Your task to perform on an android device: Open Android settings Image 0: 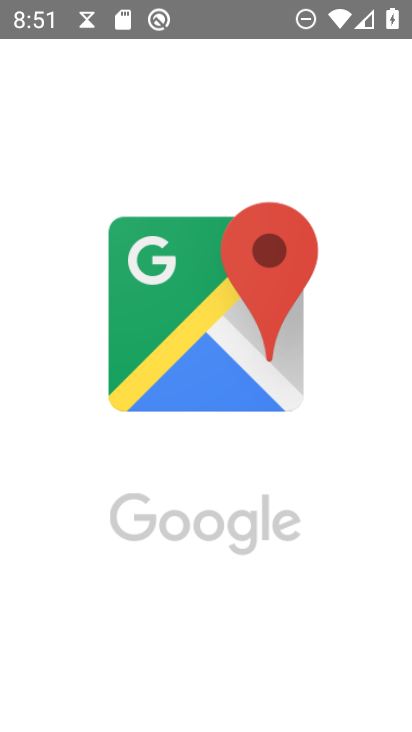
Step 0: click (316, 100)
Your task to perform on an android device: Open Android settings Image 1: 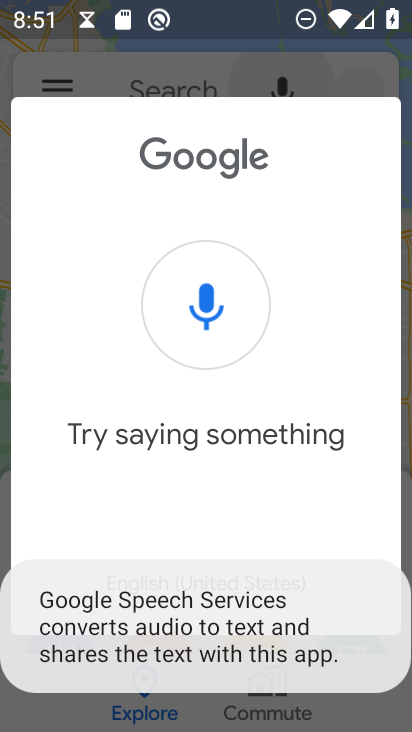
Step 1: press home button
Your task to perform on an android device: Open Android settings Image 2: 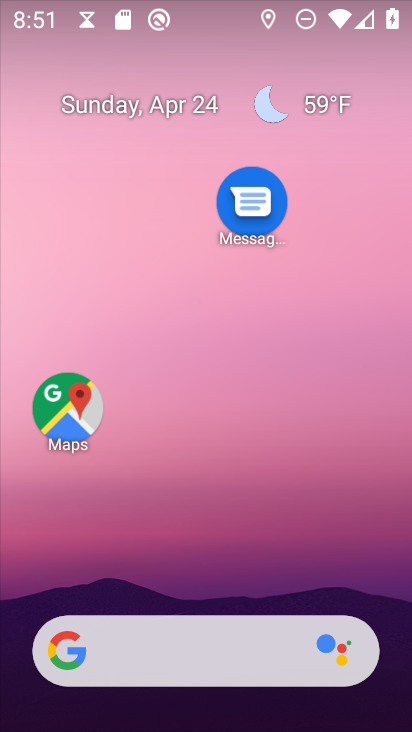
Step 2: click (331, 109)
Your task to perform on an android device: Open Android settings Image 3: 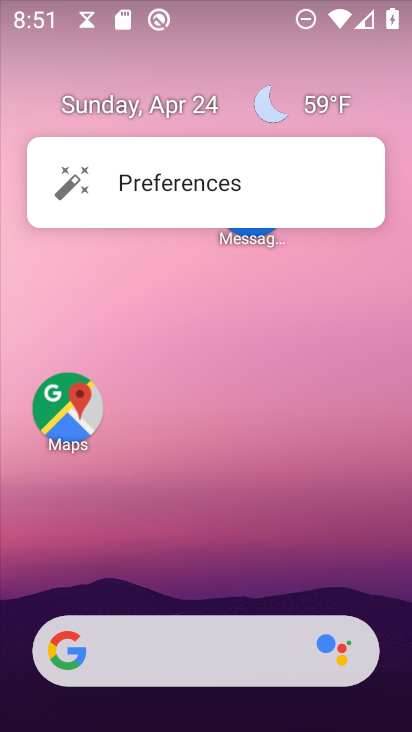
Step 3: drag from (185, 677) to (333, 130)
Your task to perform on an android device: Open Android settings Image 4: 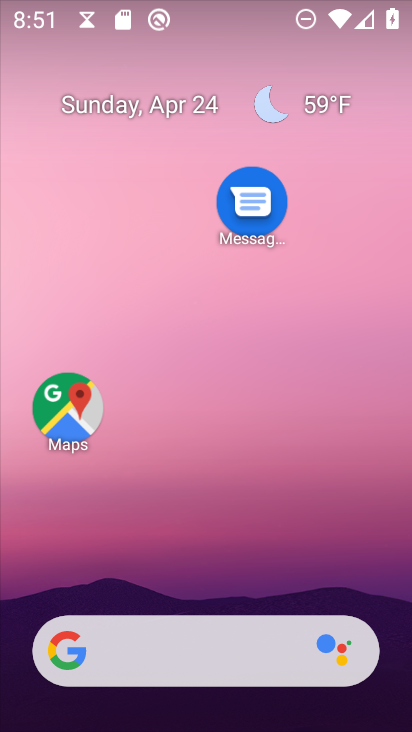
Step 4: drag from (159, 630) to (316, 130)
Your task to perform on an android device: Open Android settings Image 5: 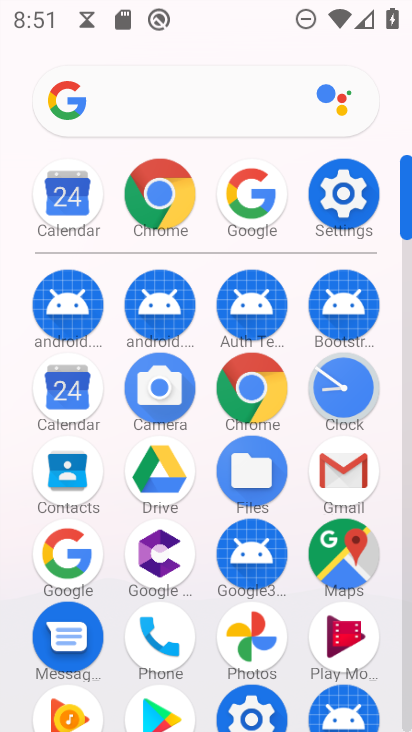
Step 5: click (343, 200)
Your task to perform on an android device: Open Android settings Image 6: 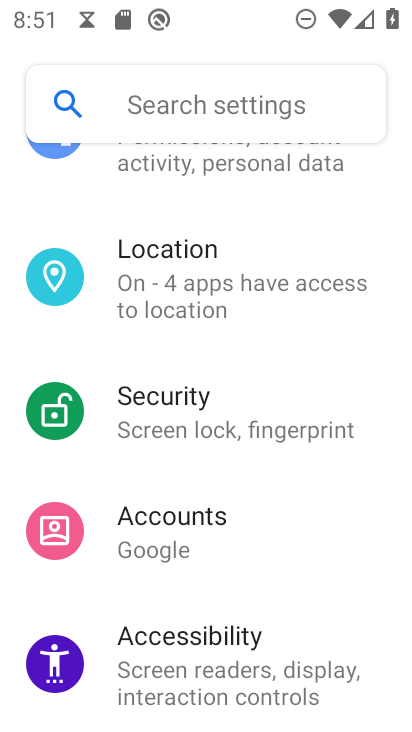
Step 6: task complete